Your task to perform on an android device: install app "Google Keep" Image 0: 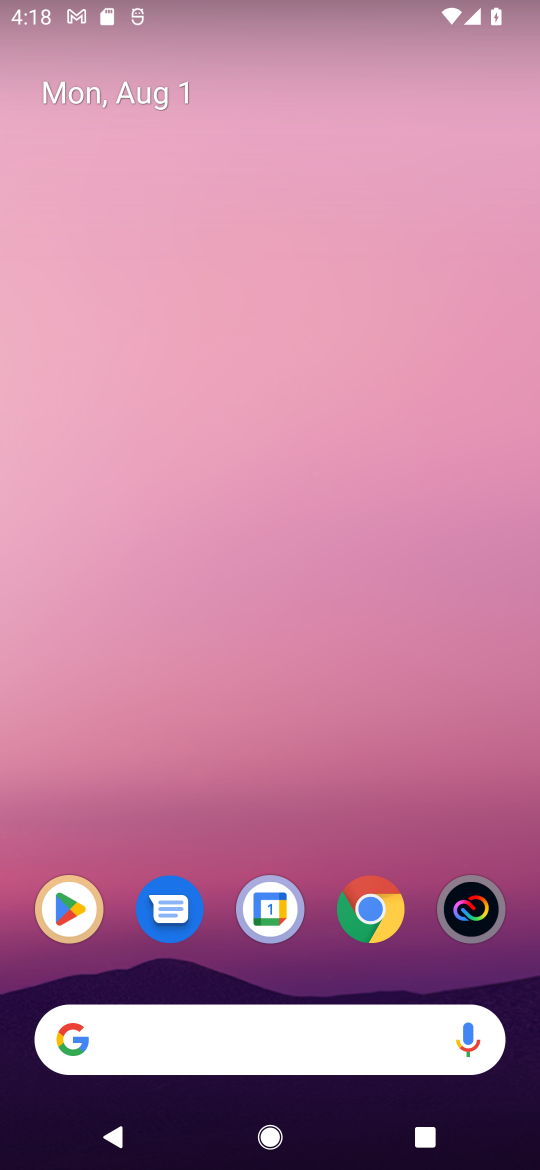
Step 0: click (77, 916)
Your task to perform on an android device: install app "Google Keep" Image 1: 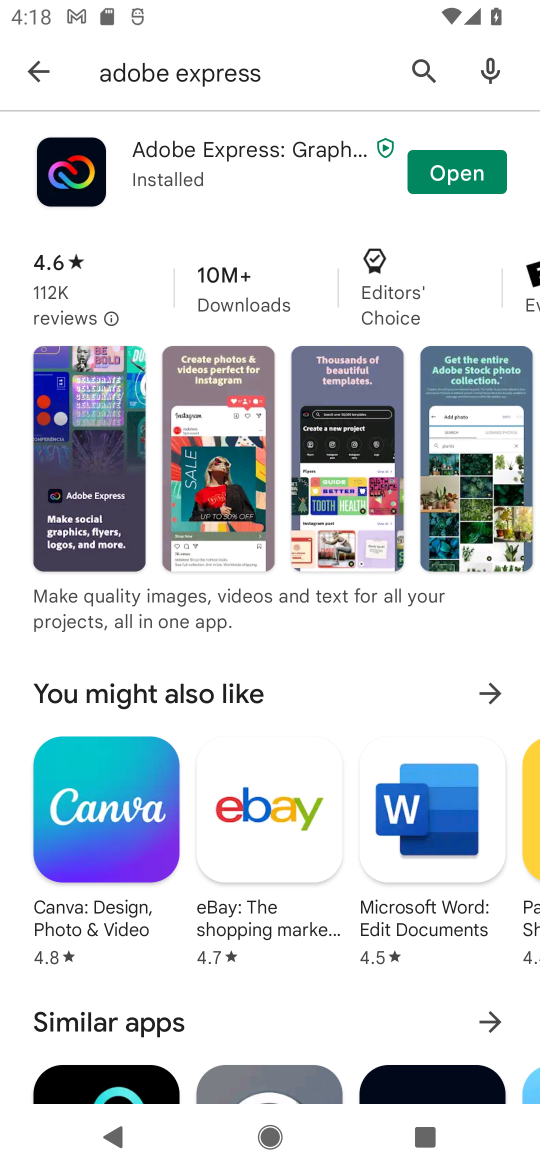
Step 1: click (288, 78)
Your task to perform on an android device: install app "Google Keep" Image 2: 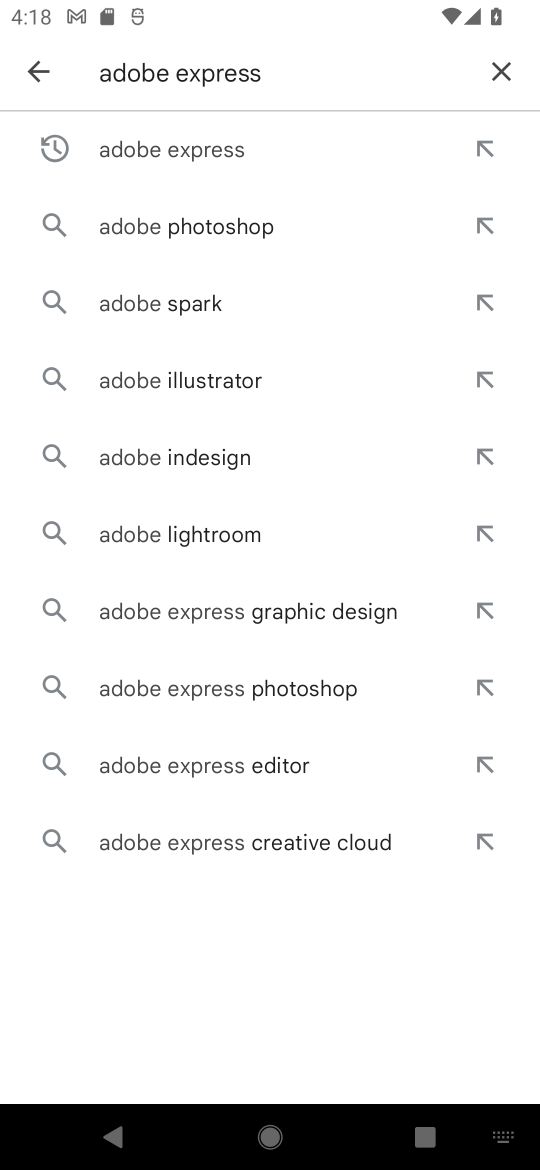
Step 2: click (497, 71)
Your task to perform on an android device: install app "Google Keep" Image 3: 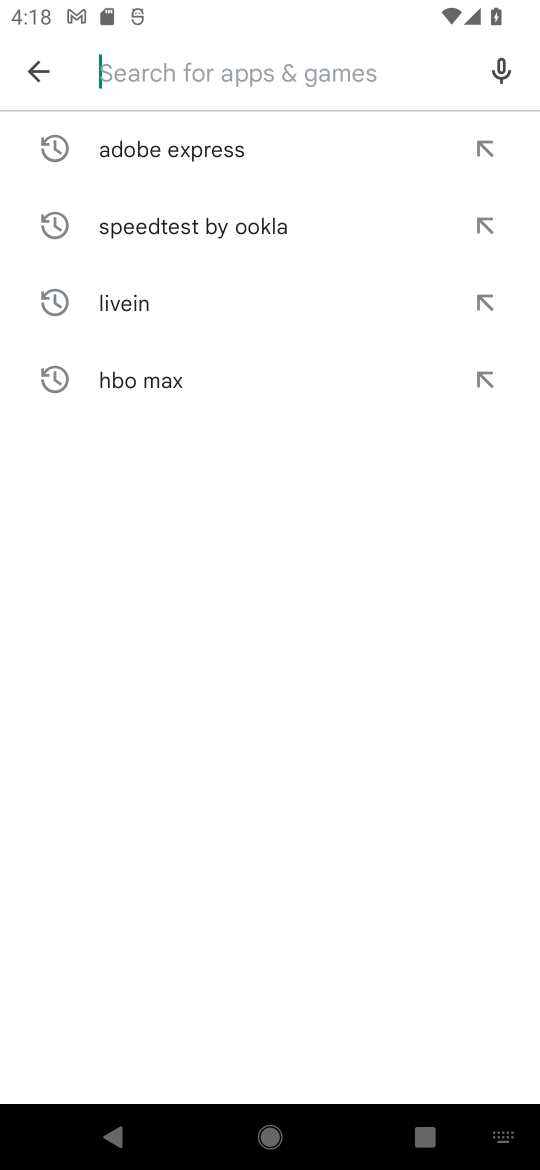
Step 3: type "google keeps"
Your task to perform on an android device: install app "Google Keep" Image 4: 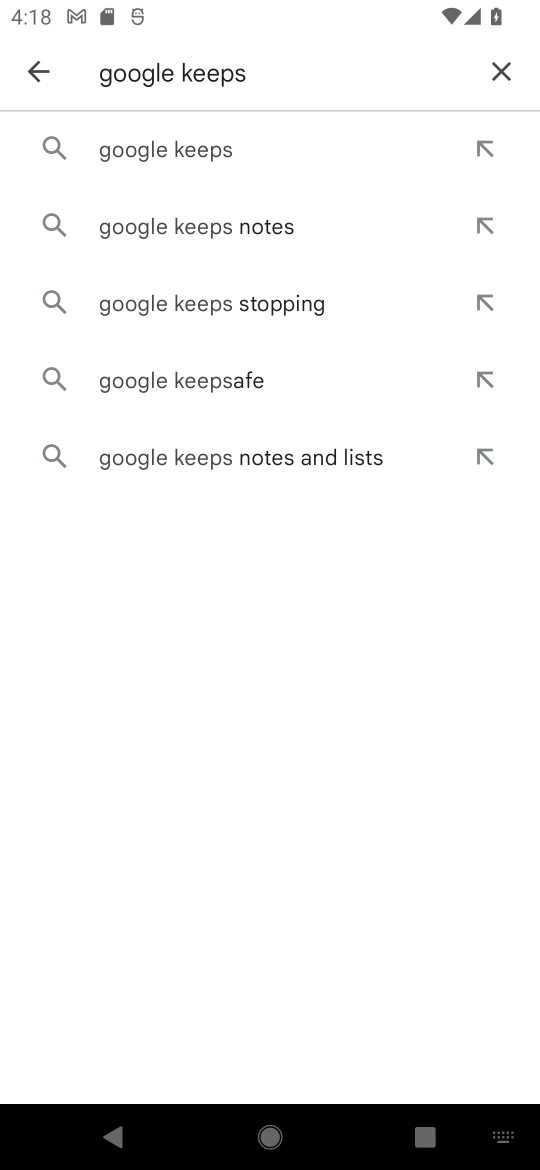
Step 4: click (182, 164)
Your task to perform on an android device: install app "Google Keep" Image 5: 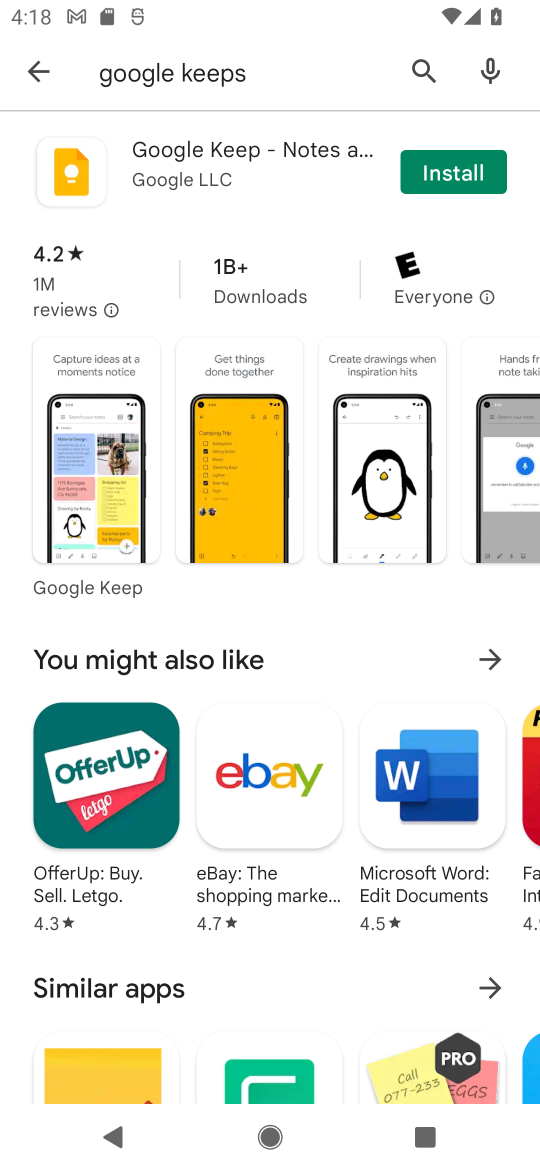
Step 5: click (463, 175)
Your task to perform on an android device: install app "Google Keep" Image 6: 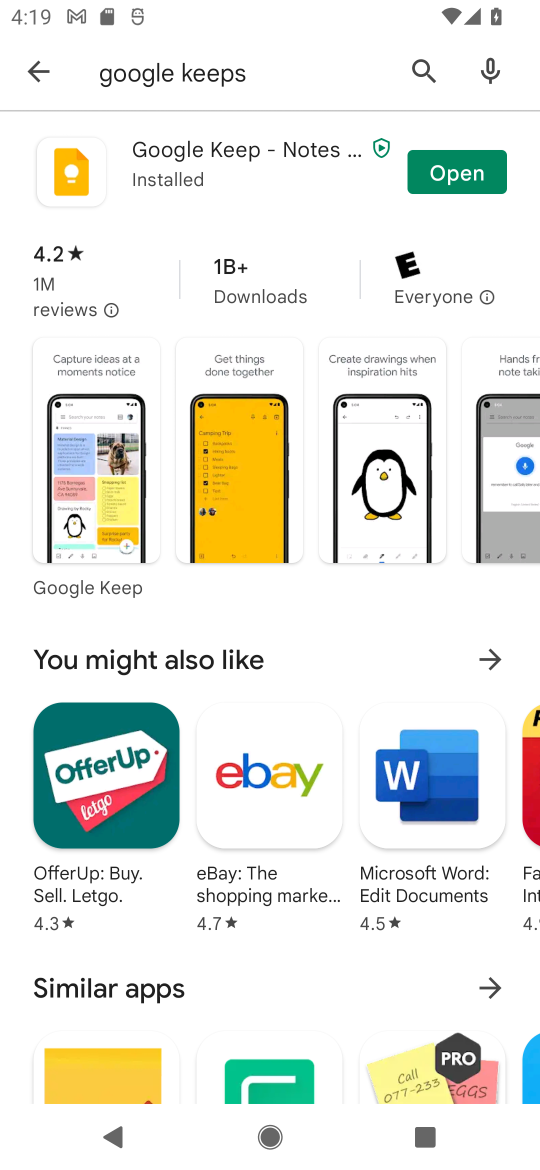
Step 6: click (450, 167)
Your task to perform on an android device: install app "Google Keep" Image 7: 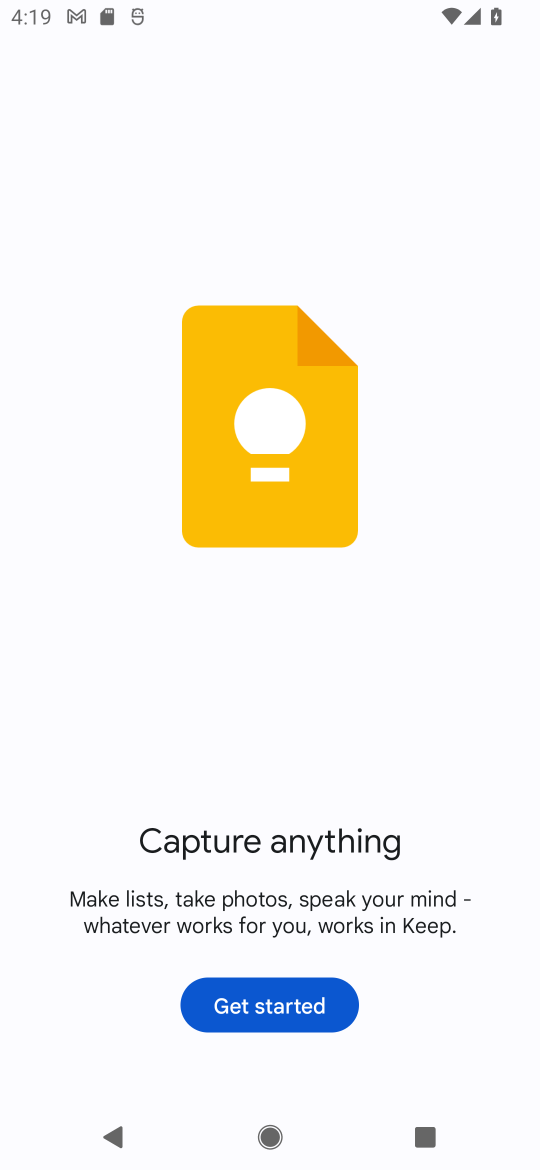
Step 7: click (260, 1012)
Your task to perform on an android device: install app "Google Keep" Image 8: 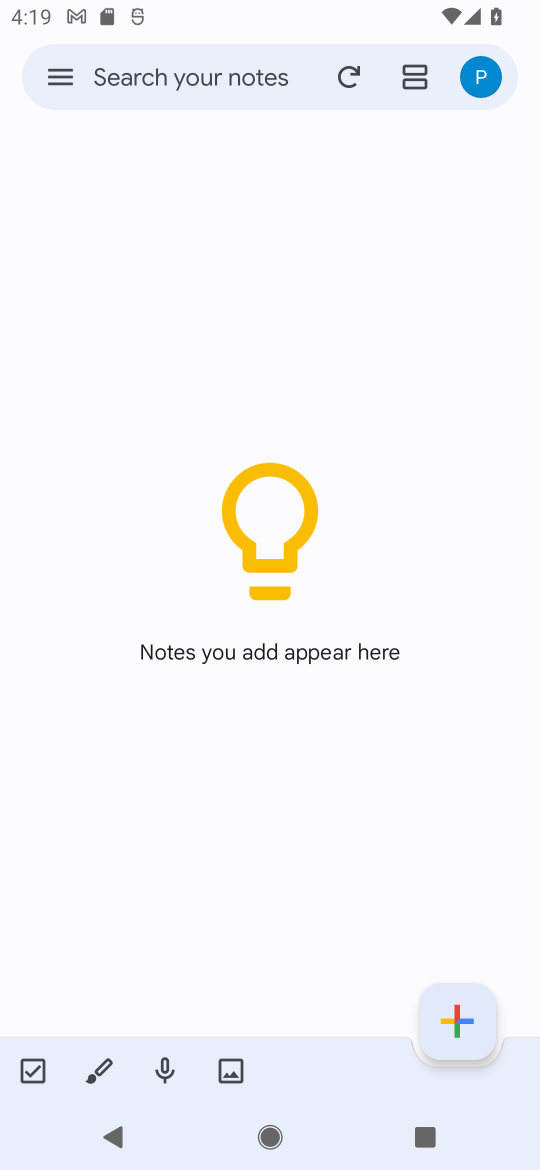
Step 8: task complete